Your task to perform on an android device: toggle show notifications on the lock screen Image 0: 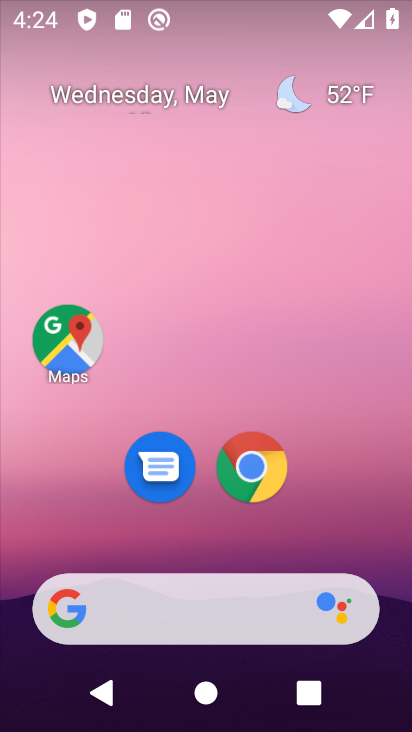
Step 0: drag from (230, 570) to (201, 189)
Your task to perform on an android device: toggle show notifications on the lock screen Image 1: 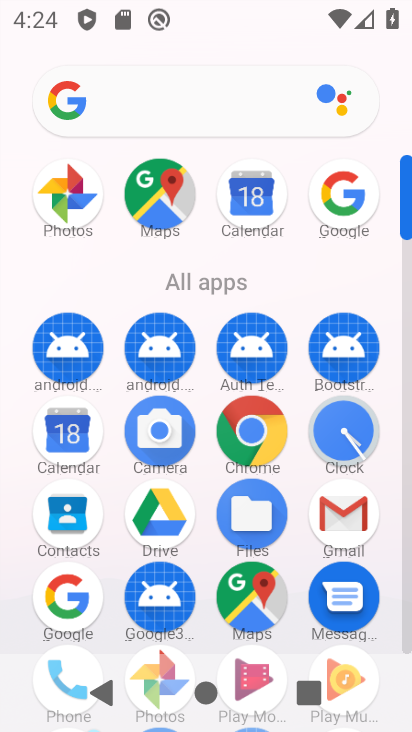
Step 1: drag from (198, 614) to (172, 222)
Your task to perform on an android device: toggle show notifications on the lock screen Image 2: 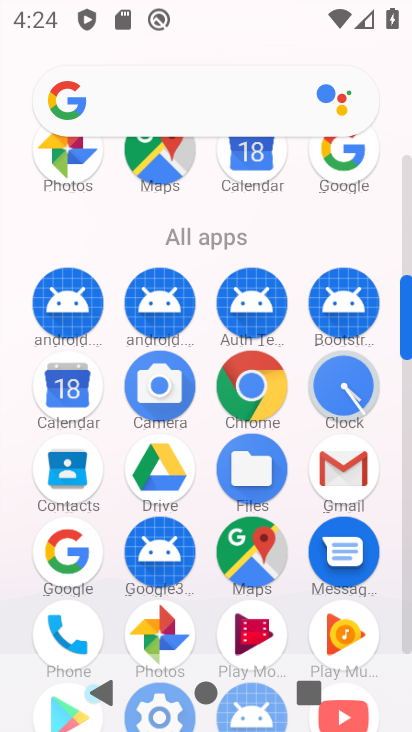
Step 2: drag from (207, 613) to (201, 257)
Your task to perform on an android device: toggle show notifications on the lock screen Image 3: 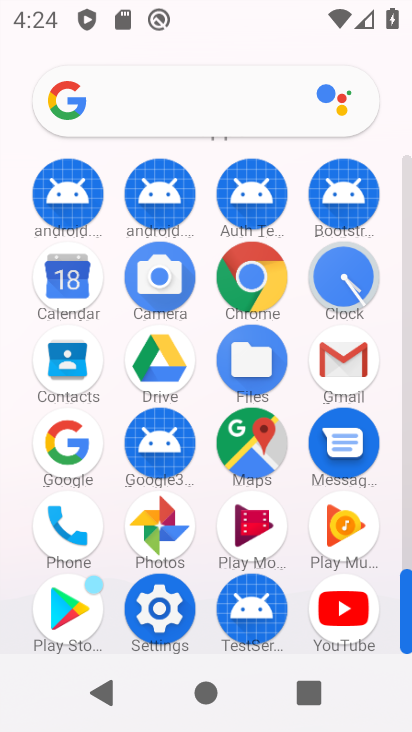
Step 3: click (169, 615)
Your task to perform on an android device: toggle show notifications on the lock screen Image 4: 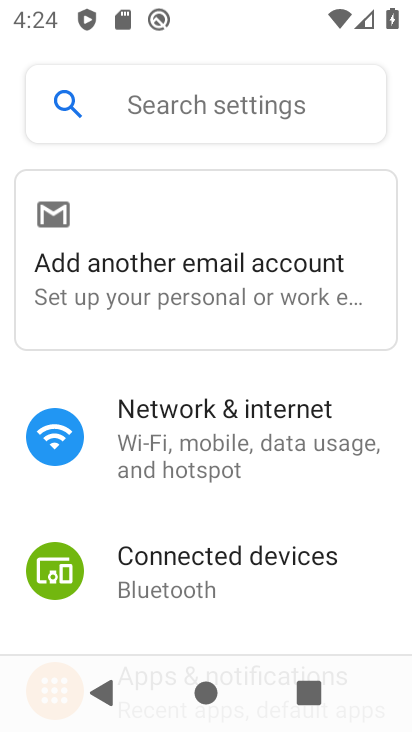
Step 4: drag from (182, 621) to (175, 299)
Your task to perform on an android device: toggle show notifications on the lock screen Image 5: 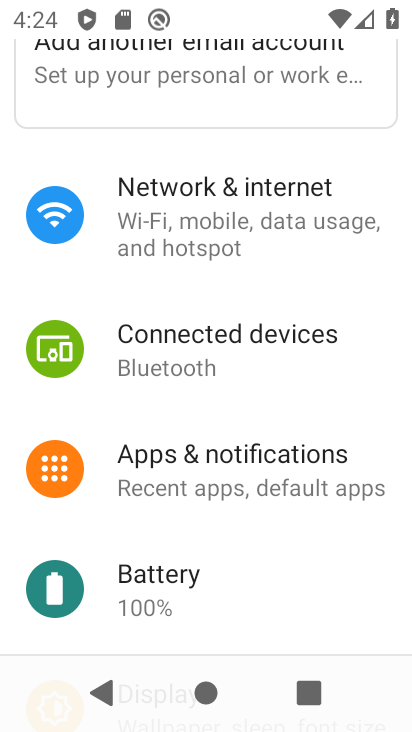
Step 5: drag from (205, 622) to (209, 330)
Your task to perform on an android device: toggle show notifications on the lock screen Image 6: 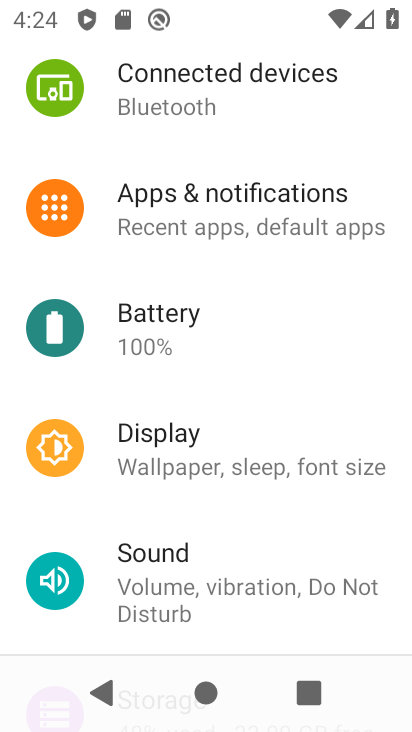
Step 6: drag from (209, 589) to (216, 300)
Your task to perform on an android device: toggle show notifications on the lock screen Image 7: 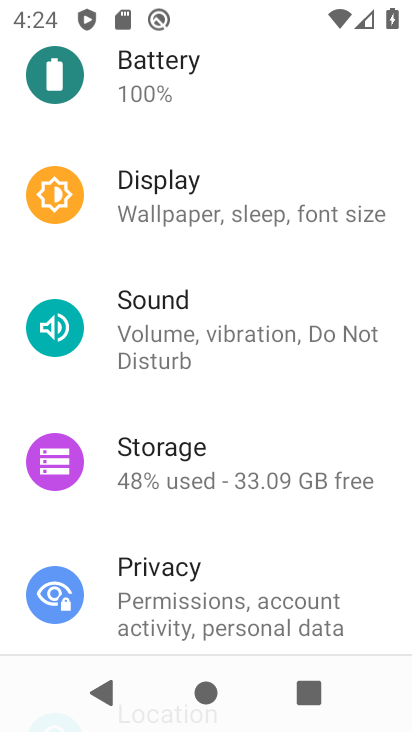
Step 7: click (191, 604)
Your task to perform on an android device: toggle show notifications on the lock screen Image 8: 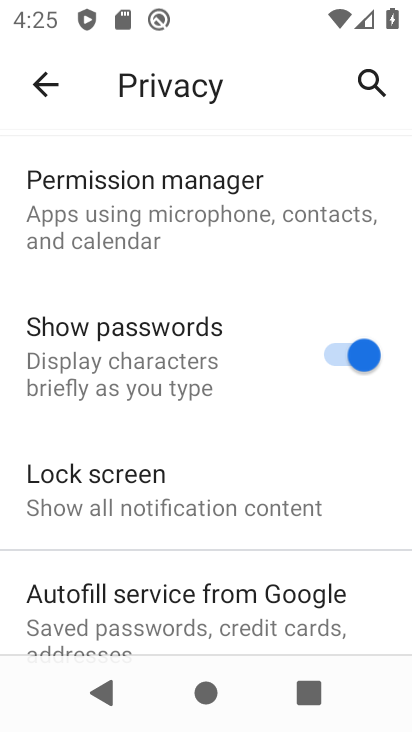
Step 8: drag from (221, 639) to (211, 352)
Your task to perform on an android device: toggle show notifications on the lock screen Image 9: 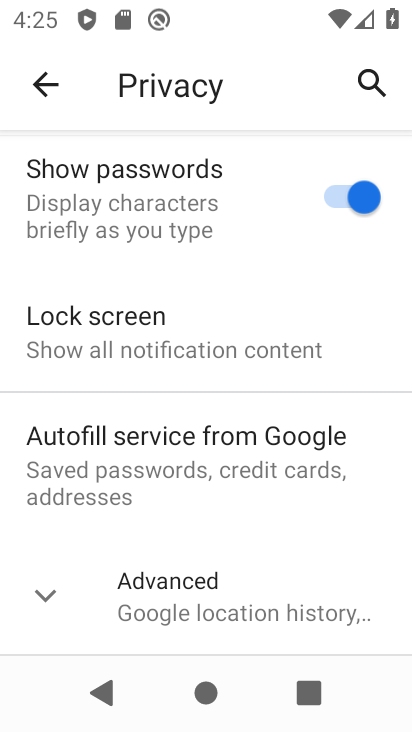
Step 9: click (139, 316)
Your task to perform on an android device: toggle show notifications on the lock screen Image 10: 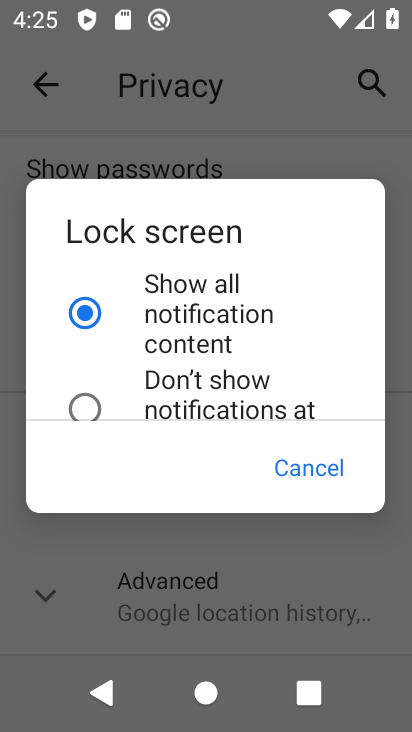
Step 10: click (89, 403)
Your task to perform on an android device: toggle show notifications on the lock screen Image 11: 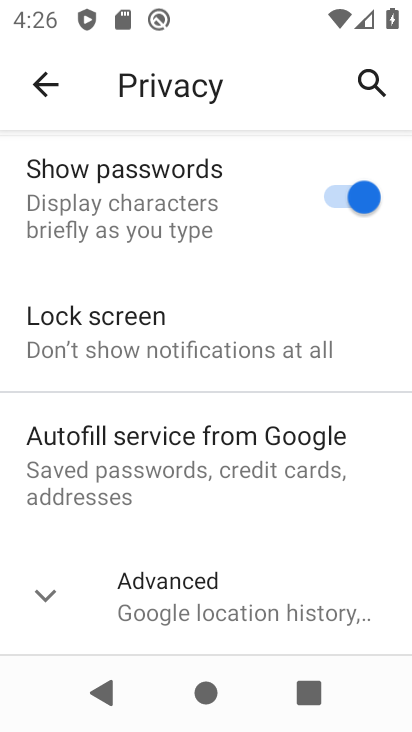
Step 11: task complete